Your task to perform on an android device: open app "Speedtest by Ookla" (install if not already installed) Image 0: 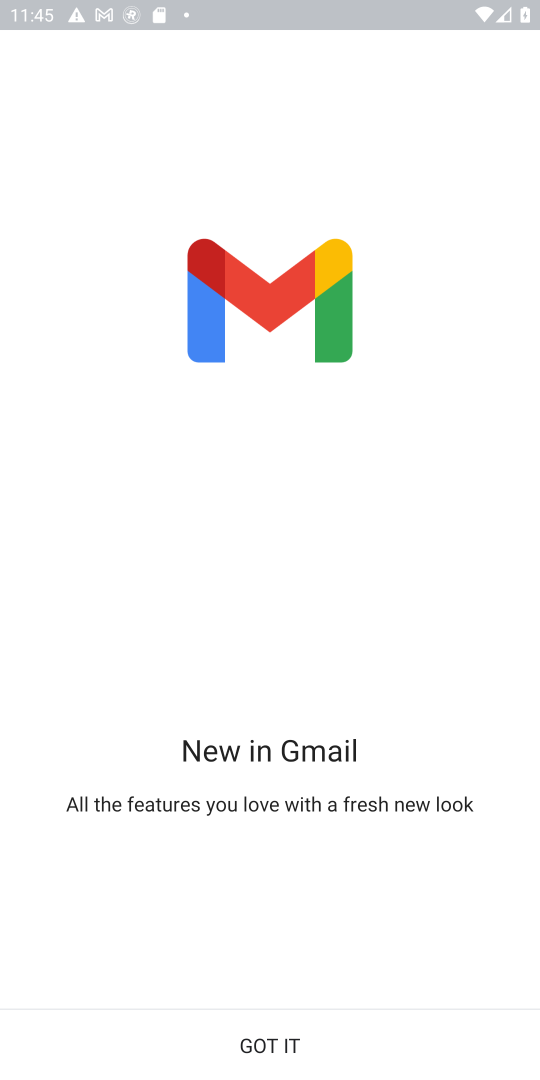
Step 0: press home button
Your task to perform on an android device: open app "Speedtest by Ookla" (install if not already installed) Image 1: 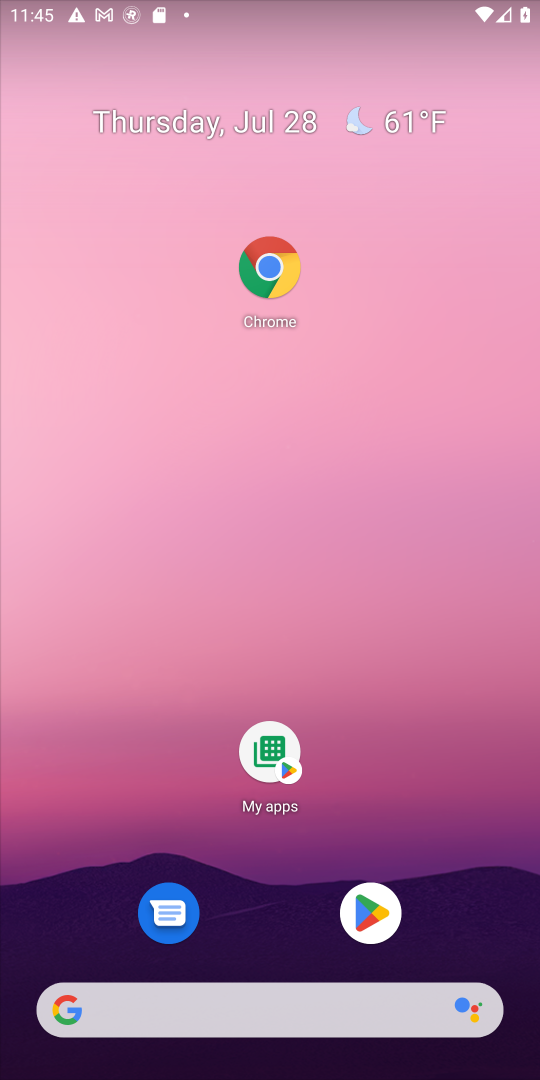
Step 1: click (362, 926)
Your task to perform on an android device: open app "Speedtest by Ookla" (install if not already installed) Image 2: 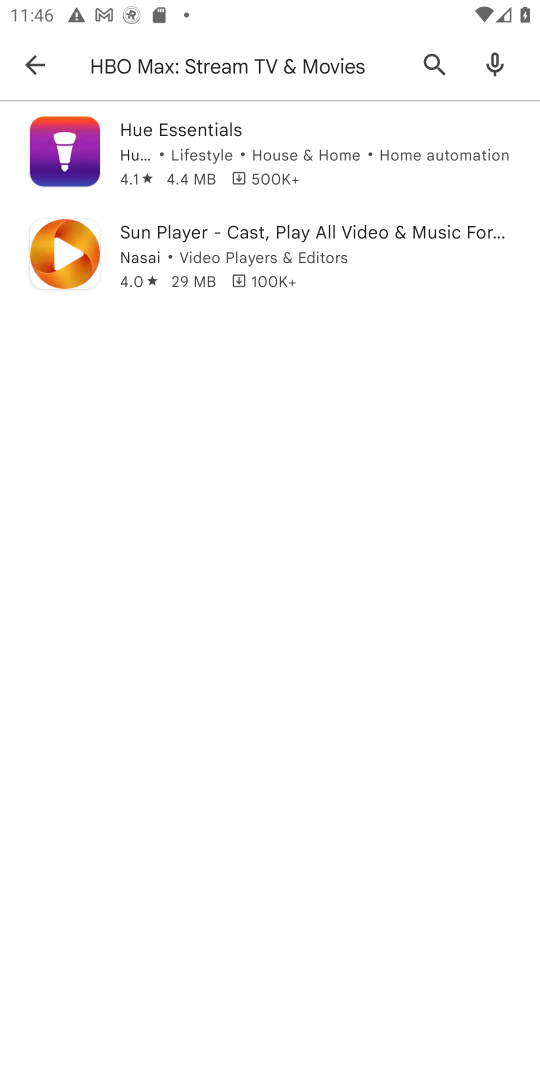
Step 2: type "speedtest"
Your task to perform on an android device: open app "Speedtest by Ookla" (install if not already installed) Image 3: 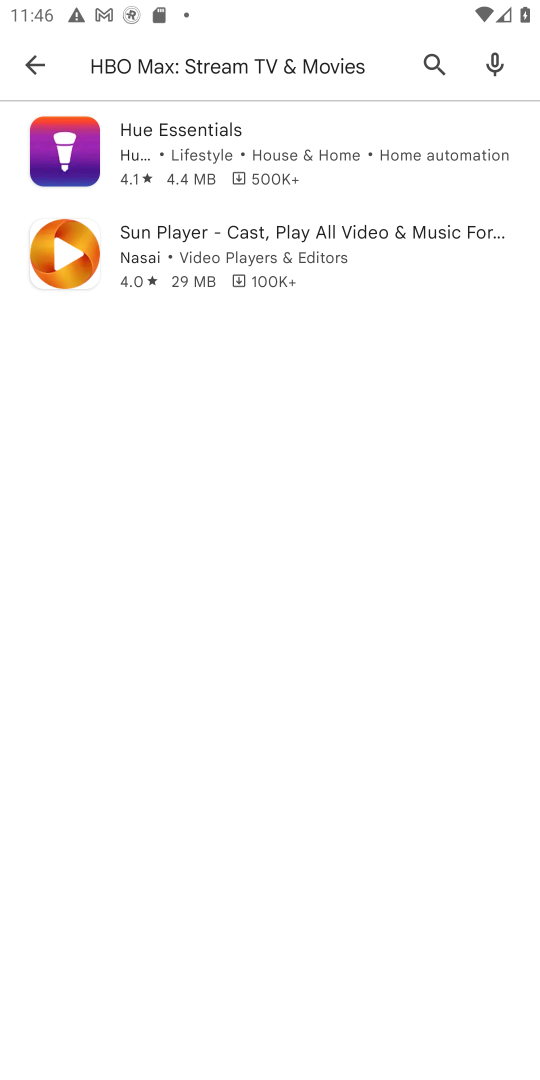
Step 3: click (417, 61)
Your task to perform on an android device: open app "Speedtest by Ookla" (install if not already installed) Image 4: 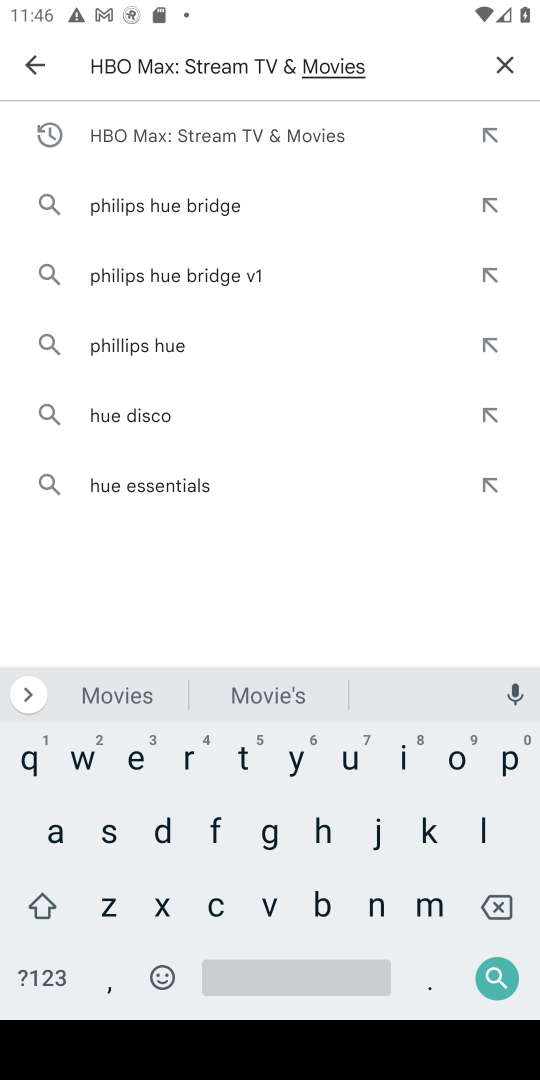
Step 4: click (494, 64)
Your task to perform on an android device: open app "Speedtest by Ookla" (install if not already installed) Image 5: 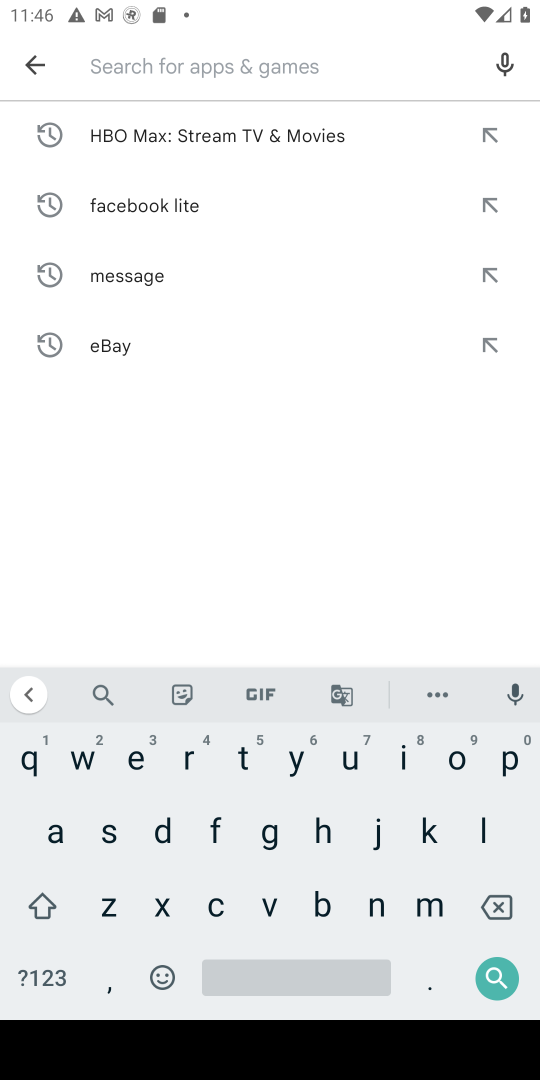
Step 5: type "speedtest"
Your task to perform on an android device: open app "Speedtest by Ookla" (install if not already installed) Image 6: 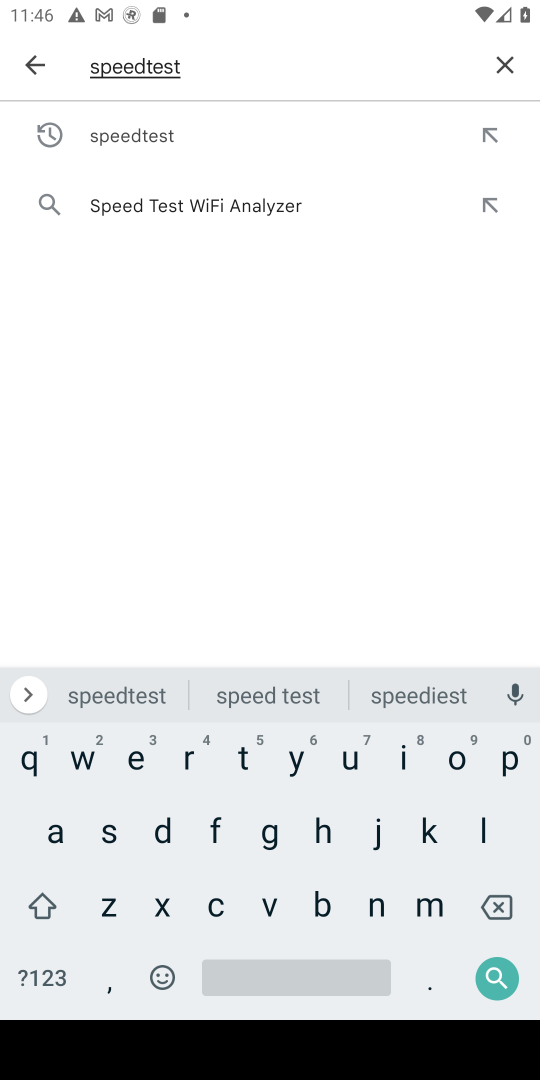
Step 6: click (147, 127)
Your task to perform on an android device: open app "Speedtest by Ookla" (install if not already installed) Image 7: 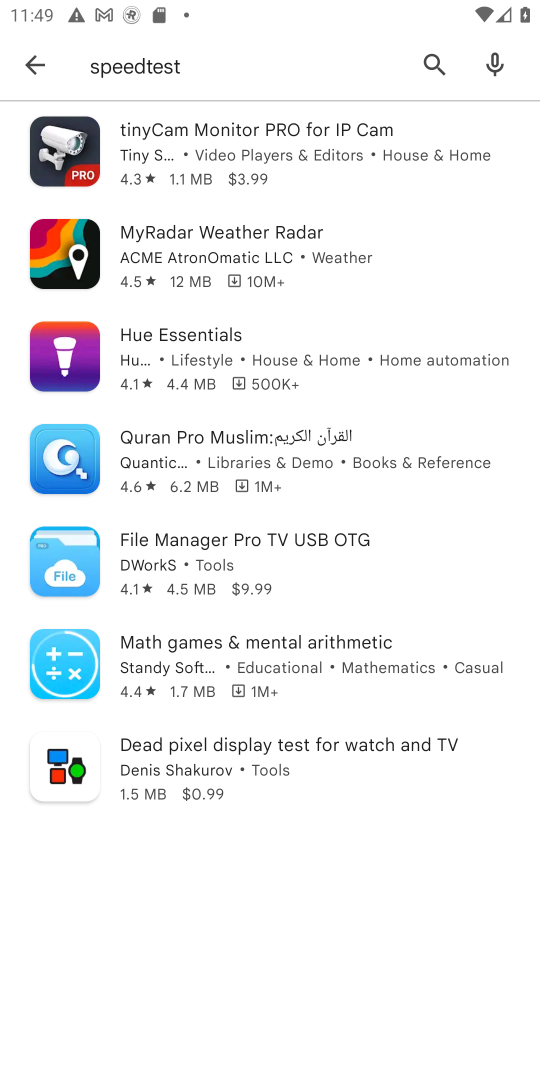
Step 7: task complete